Your task to perform on an android device: move an email to a new category in the gmail app Image 0: 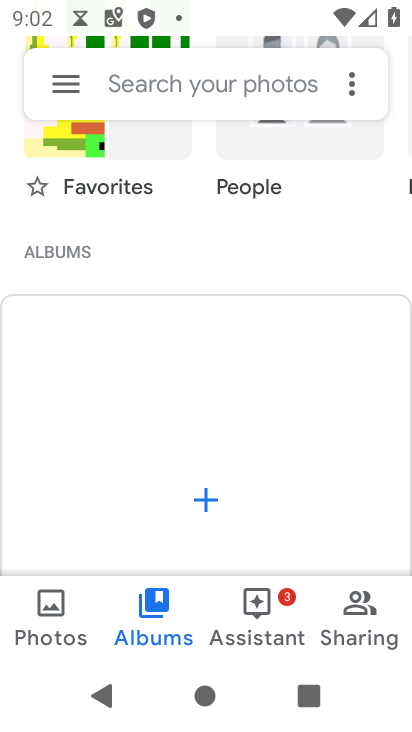
Step 0: press home button
Your task to perform on an android device: move an email to a new category in the gmail app Image 1: 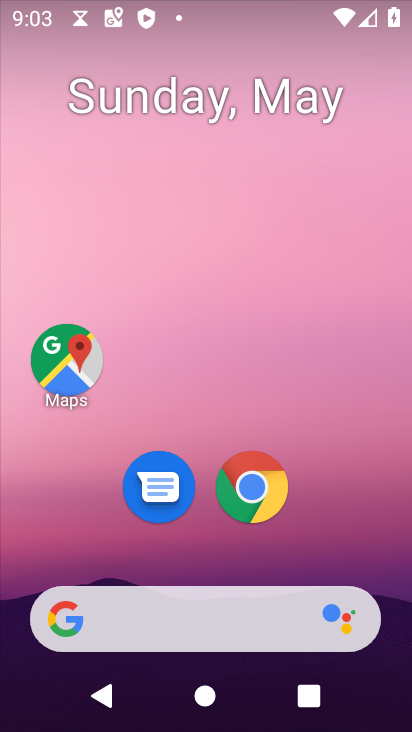
Step 1: drag from (388, 437) to (399, 404)
Your task to perform on an android device: move an email to a new category in the gmail app Image 2: 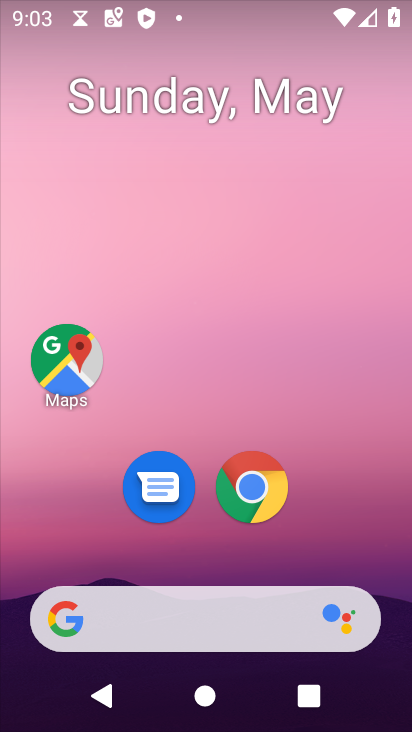
Step 2: drag from (330, 483) to (311, 111)
Your task to perform on an android device: move an email to a new category in the gmail app Image 3: 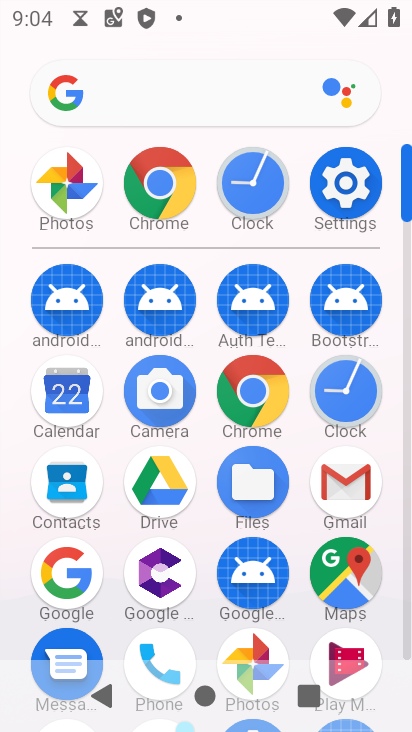
Step 3: click (352, 487)
Your task to perform on an android device: move an email to a new category in the gmail app Image 4: 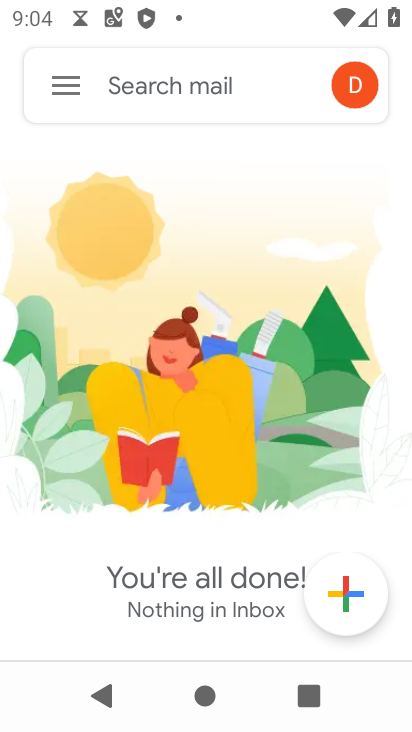
Step 4: task complete